Your task to perform on an android device: turn off airplane mode Image 0: 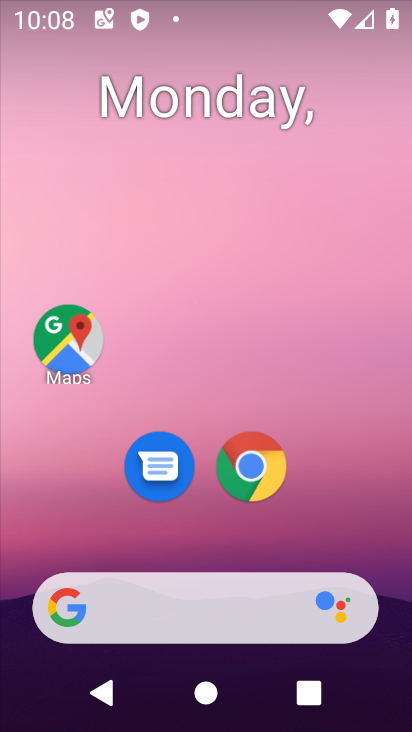
Step 0: drag from (209, 560) to (243, 198)
Your task to perform on an android device: turn off airplane mode Image 1: 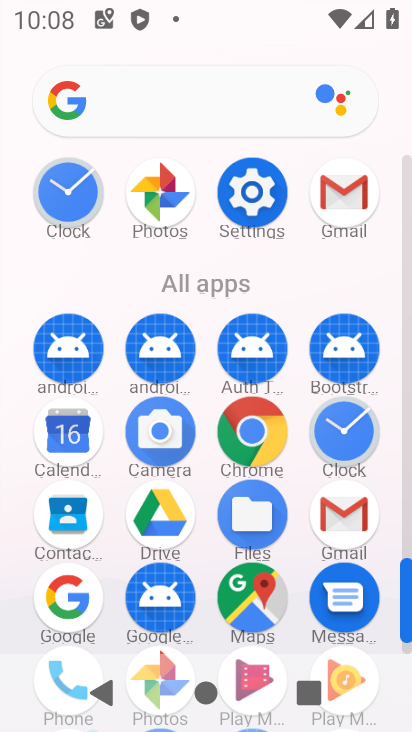
Step 1: click (256, 195)
Your task to perform on an android device: turn off airplane mode Image 2: 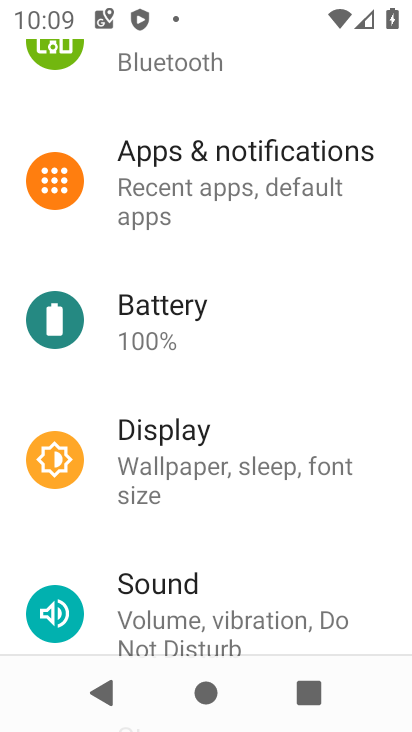
Step 2: drag from (227, 127) to (213, 545)
Your task to perform on an android device: turn off airplane mode Image 3: 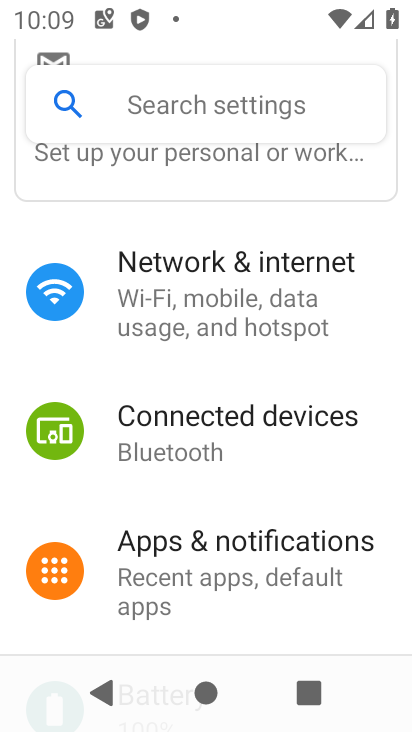
Step 3: click (218, 312)
Your task to perform on an android device: turn off airplane mode Image 4: 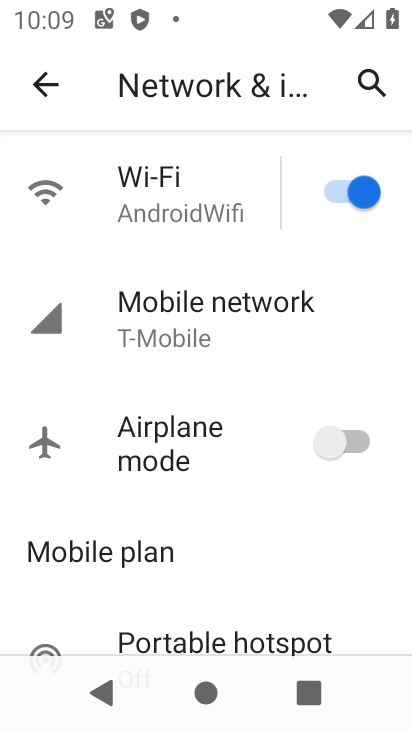
Step 4: task complete